Your task to perform on an android device: Turn off the flashlight Image 0: 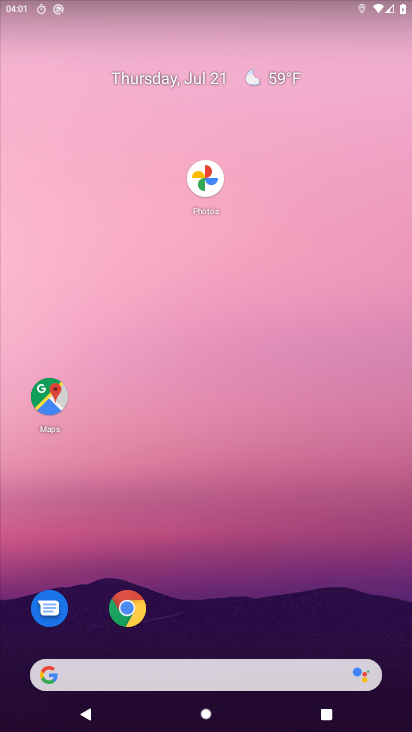
Step 0: press home button
Your task to perform on an android device: Turn off the flashlight Image 1: 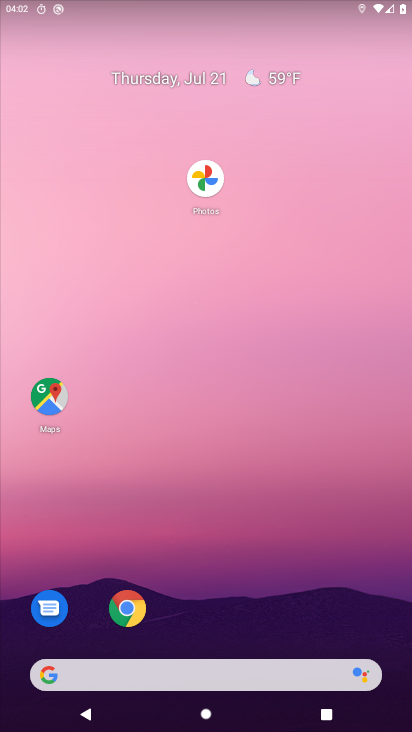
Step 1: drag from (201, 639) to (200, 105)
Your task to perform on an android device: Turn off the flashlight Image 2: 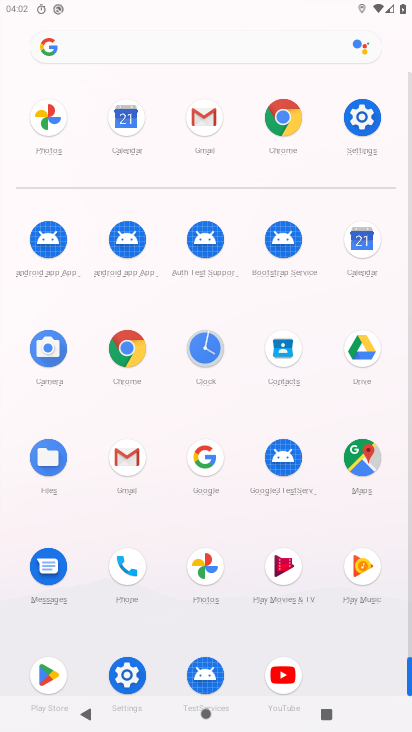
Step 2: click (359, 114)
Your task to perform on an android device: Turn off the flashlight Image 3: 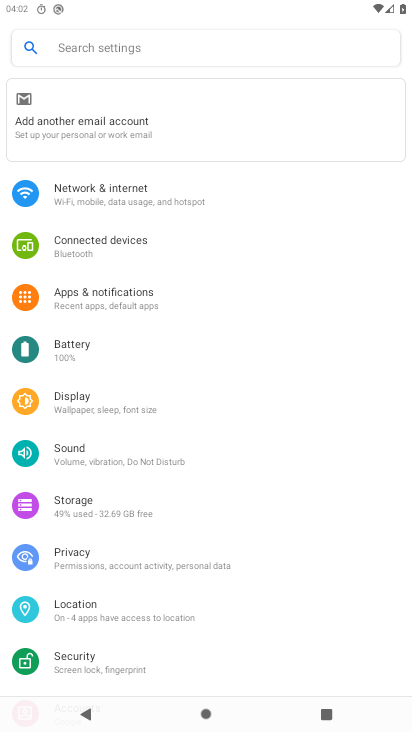
Step 3: click (82, 41)
Your task to perform on an android device: Turn off the flashlight Image 4: 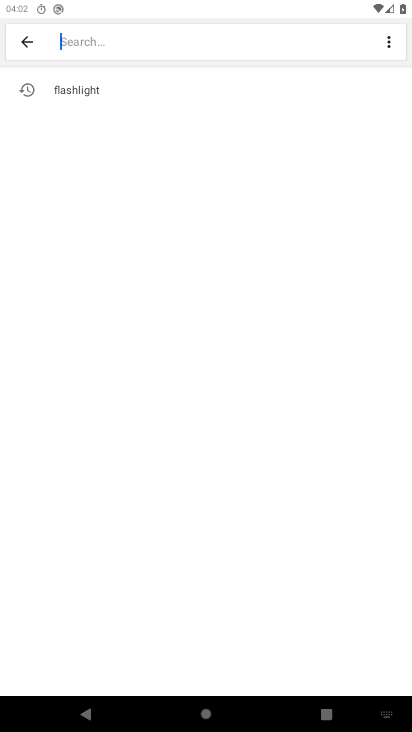
Step 4: click (78, 87)
Your task to perform on an android device: Turn off the flashlight Image 5: 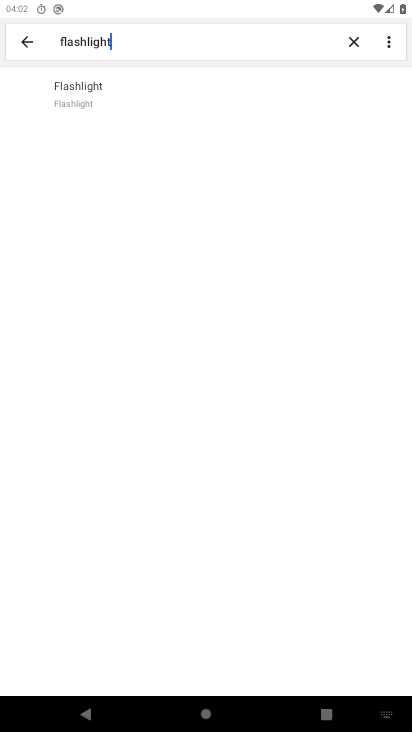
Step 5: click (104, 92)
Your task to perform on an android device: Turn off the flashlight Image 6: 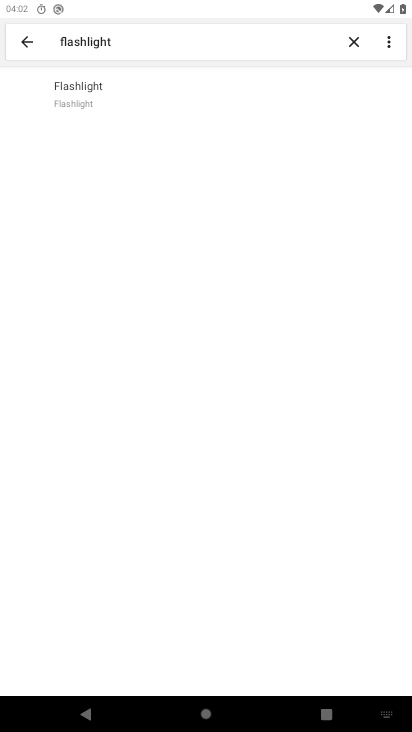
Step 6: task complete